Your task to perform on an android device: uninstall "Paramount+ | Peak Streaming" Image 0: 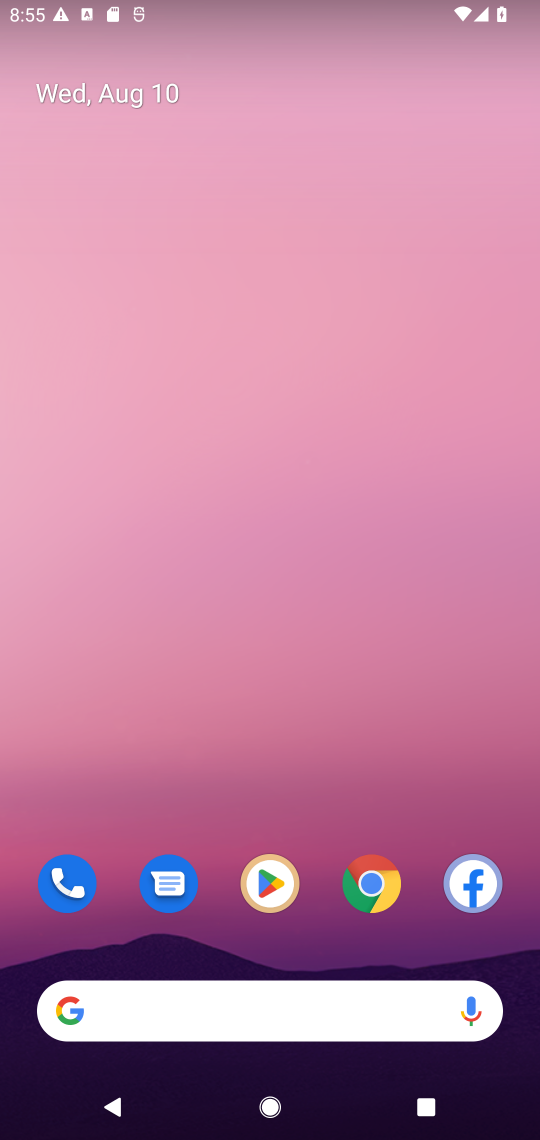
Step 0: click (266, 889)
Your task to perform on an android device: uninstall "Paramount+ | Peak Streaming" Image 1: 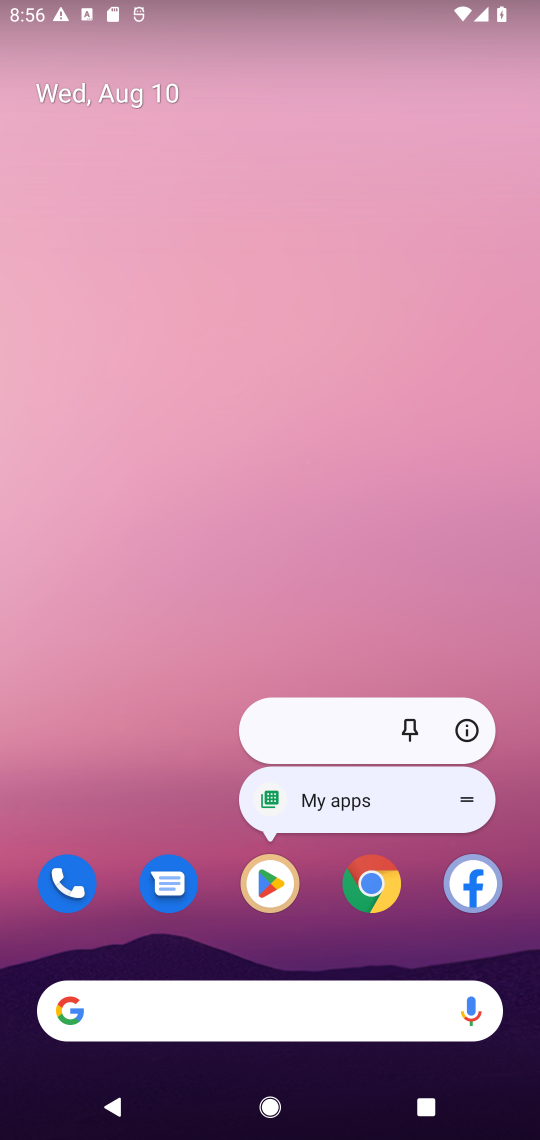
Step 1: drag from (219, 940) to (217, 28)
Your task to perform on an android device: uninstall "Paramount+ | Peak Streaming" Image 2: 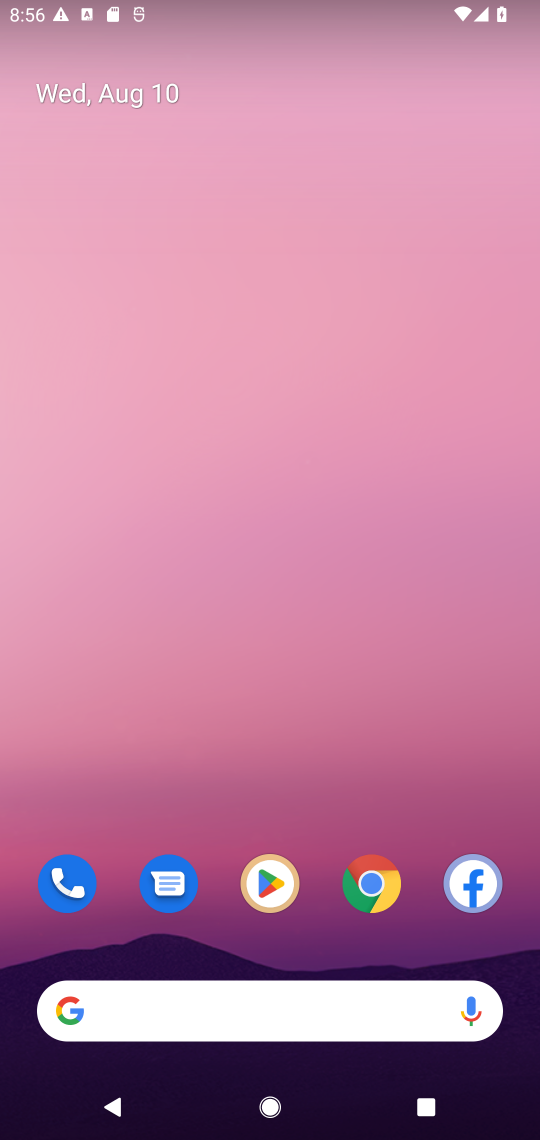
Step 2: drag from (208, 800) to (208, 90)
Your task to perform on an android device: uninstall "Paramount+ | Peak Streaming" Image 3: 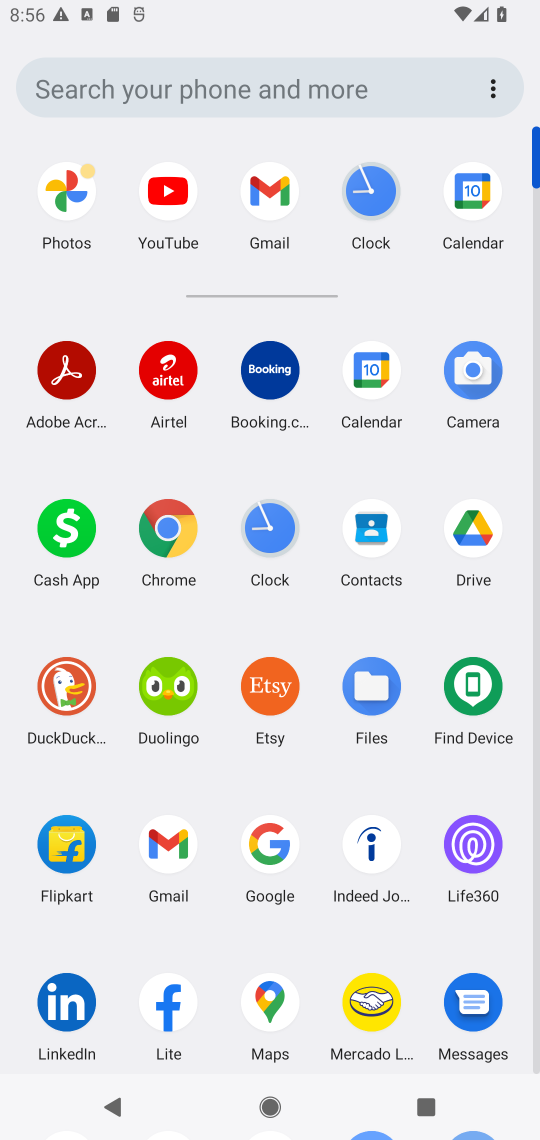
Step 3: drag from (192, 949) to (168, 511)
Your task to perform on an android device: uninstall "Paramount+ | Peak Streaming" Image 4: 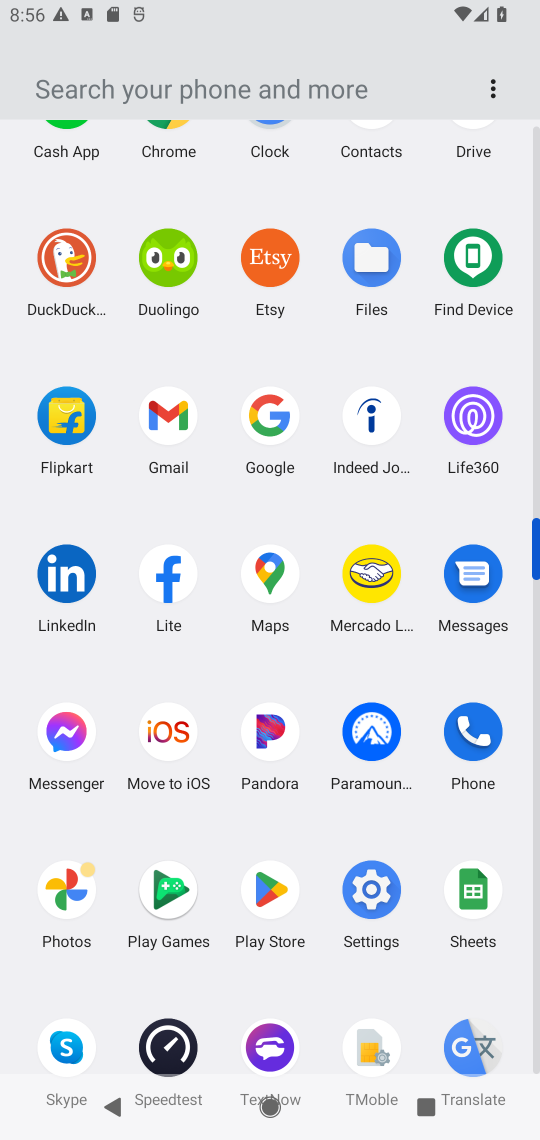
Step 4: click (268, 883)
Your task to perform on an android device: uninstall "Paramount+ | Peak Streaming" Image 5: 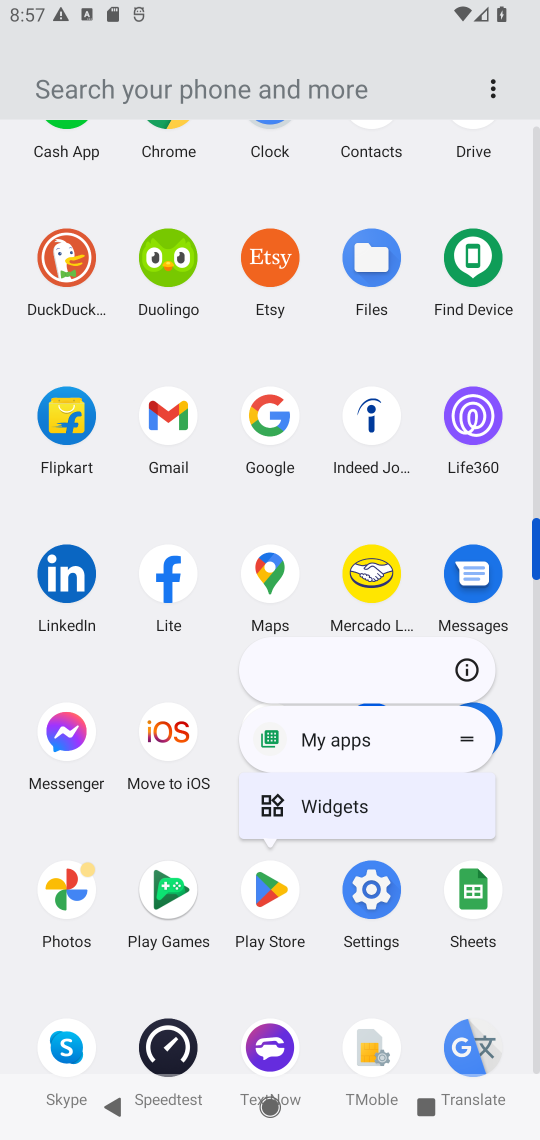
Step 5: click (269, 900)
Your task to perform on an android device: uninstall "Paramount+ | Peak Streaming" Image 6: 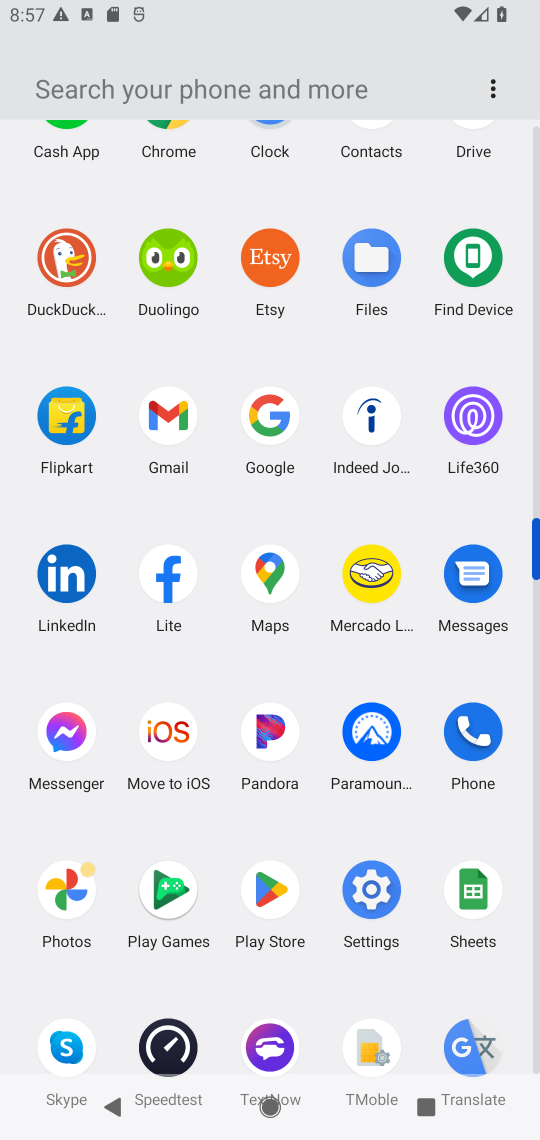
Step 6: click (266, 901)
Your task to perform on an android device: uninstall "Paramount+ | Peak Streaming" Image 7: 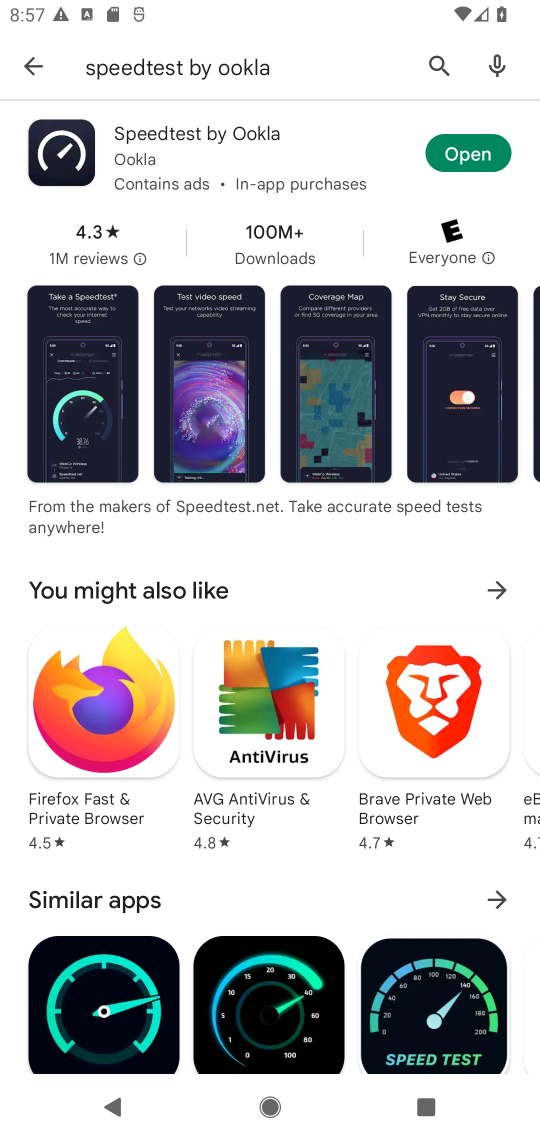
Step 7: click (439, 62)
Your task to perform on an android device: uninstall "Paramount+ | Peak Streaming" Image 8: 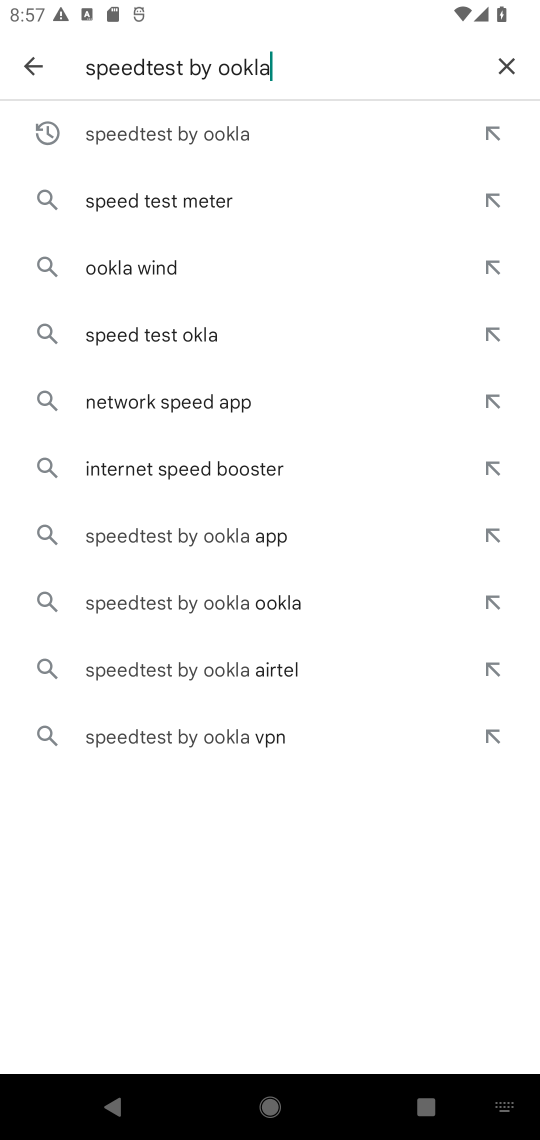
Step 8: click (501, 62)
Your task to perform on an android device: uninstall "Paramount+ | Peak Streaming" Image 9: 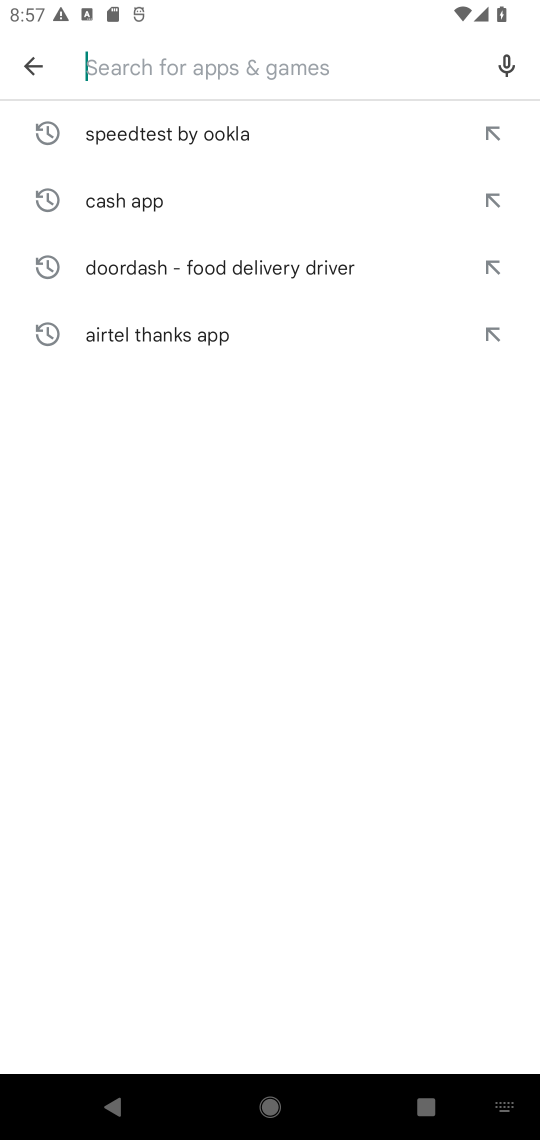
Step 9: type "Paramount+ | Peak Streaming"
Your task to perform on an android device: uninstall "Paramount+ | Peak Streaming" Image 10: 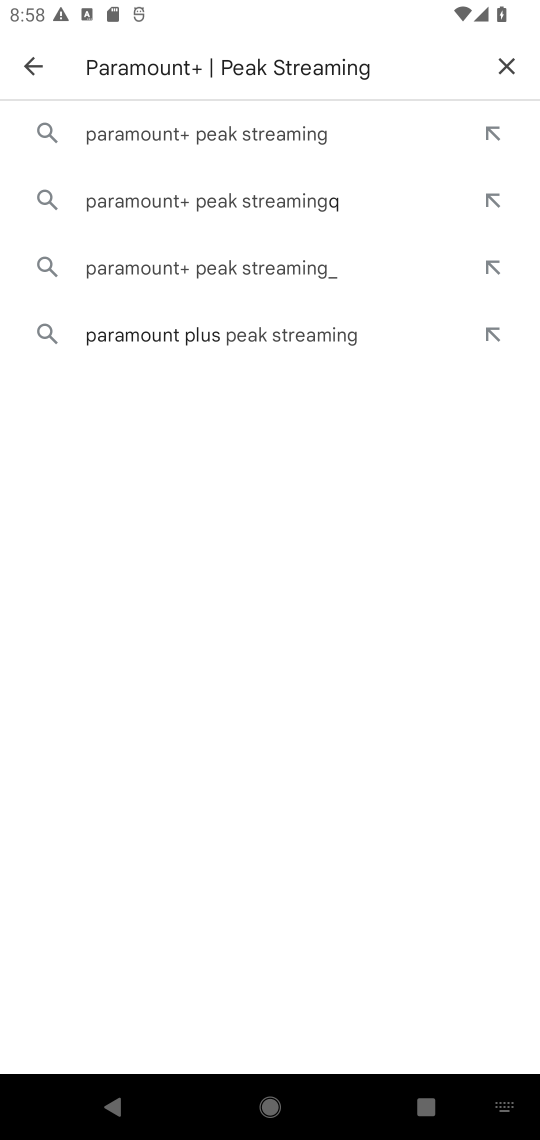
Step 10: click (233, 129)
Your task to perform on an android device: uninstall "Paramount+ | Peak Streaming" Image 11: 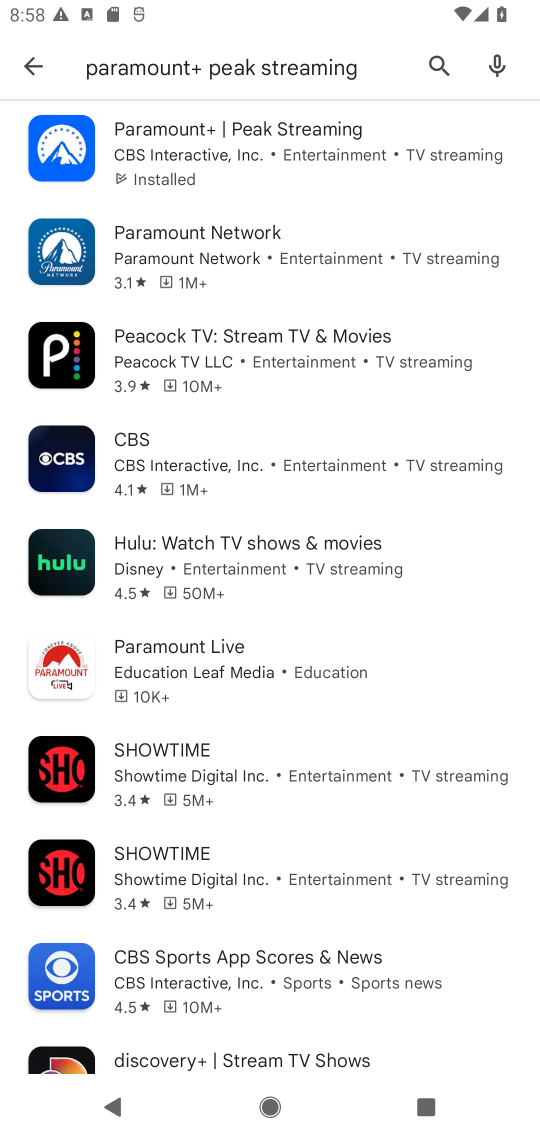
Step 11: click (204, 135)
Your task to perform on an android device: uninstall "Paramount+ | Peak Streaming" Image 12: 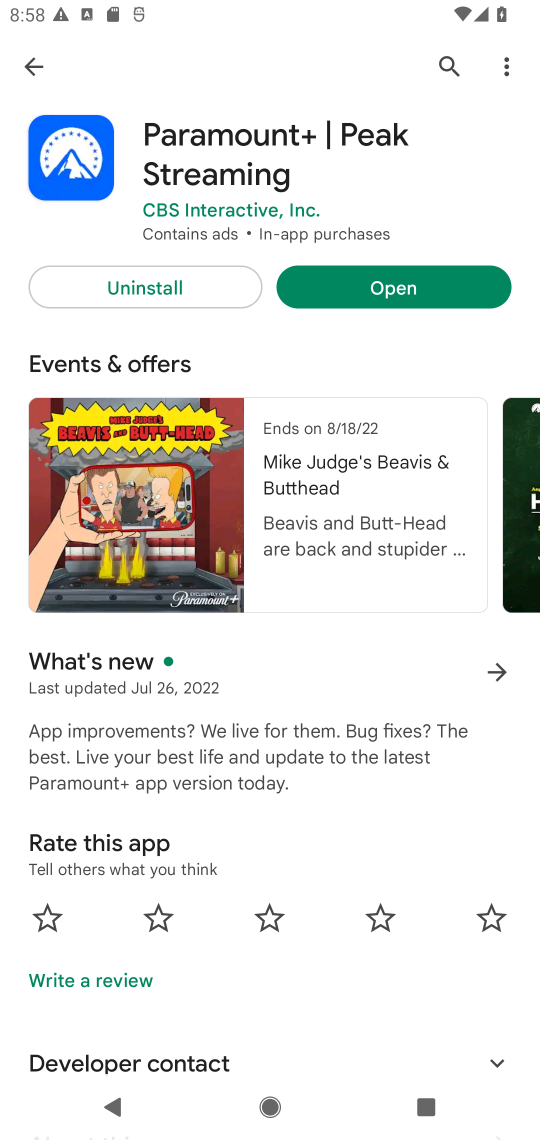
Step 12: click (121, 287)
Your task to perform on an android device: uninstall "Paramount+ | Peak Streaming" Image 13: 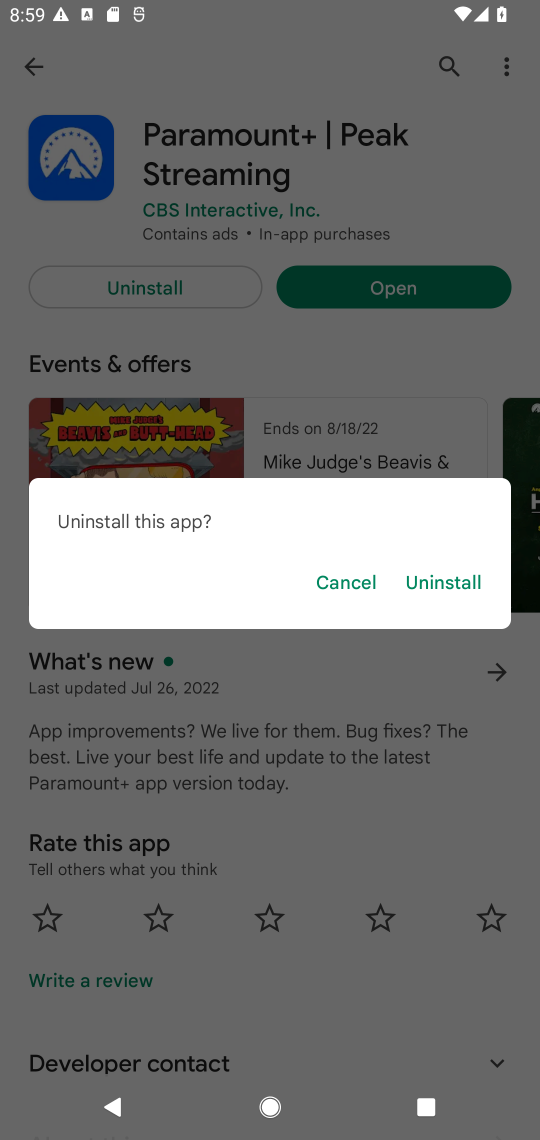
Step 13: click (423, 577)
Your task to perform on an android device: uninstall "Paramount+ | Peak Streaming" Image 14: 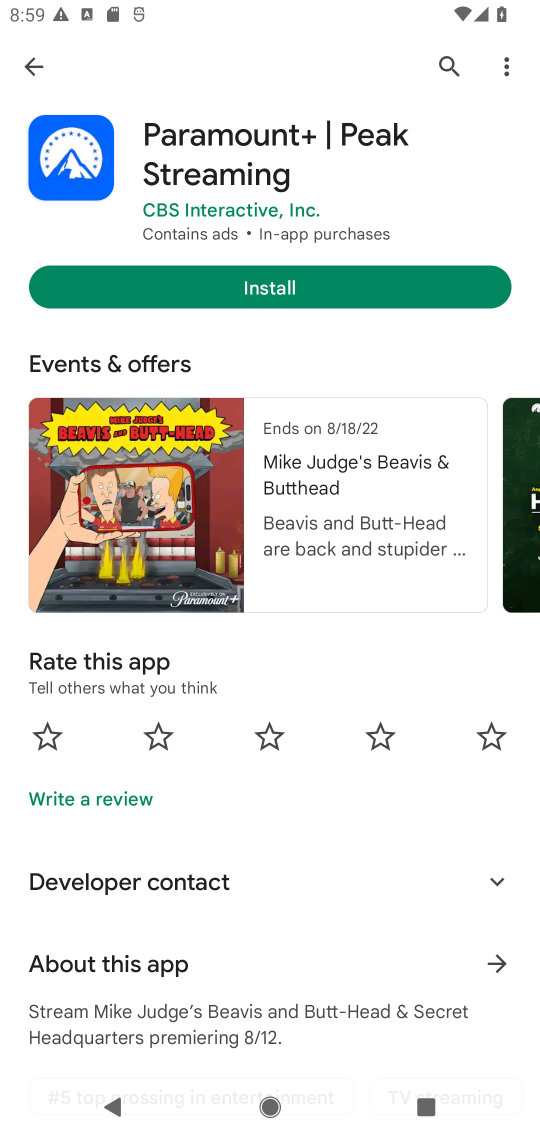
Step 14: task complete